Your task to perform on an android device: Go to network settings Image 0: 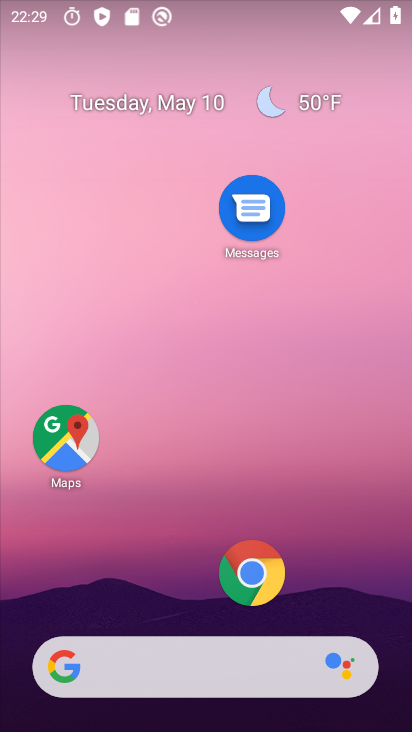
Step 0: drag from (183, 600) to (202, 107)
Your task to perform on an android device: Go to network settings Image 1: 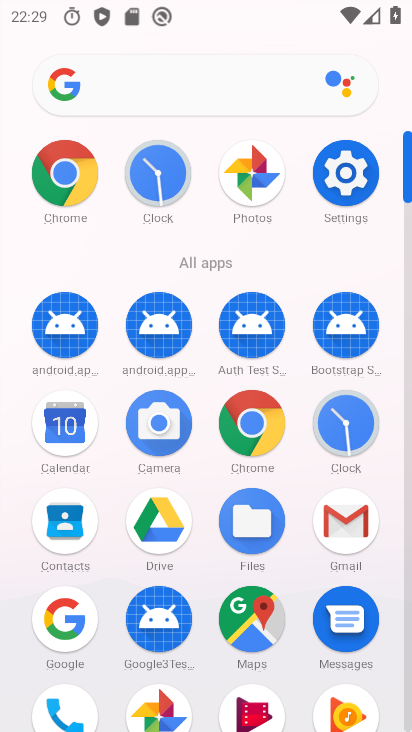
Step 1: click (349, 167)
Your task to perform on an android device: Go to network settings Image 2: 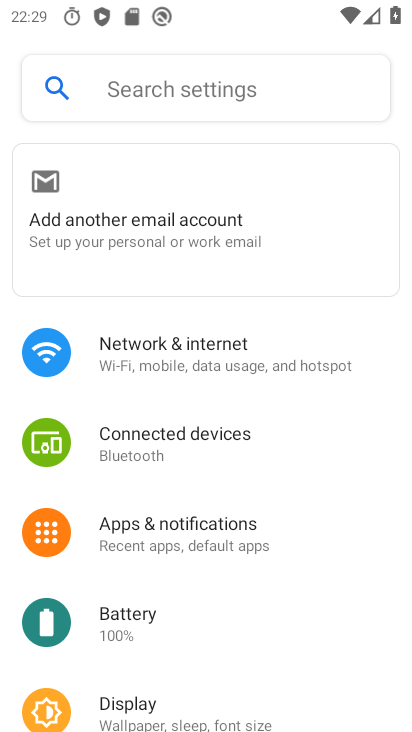
Step 2: click (185, 367)
Your task to perform on an android device: Go to network settings Image 3: 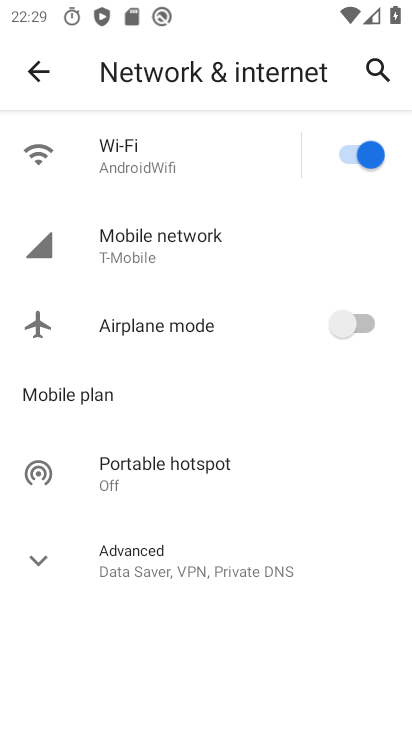
Step 3: click (140, 247)
Your task to perform on an android device: Go to network settings Image 4: 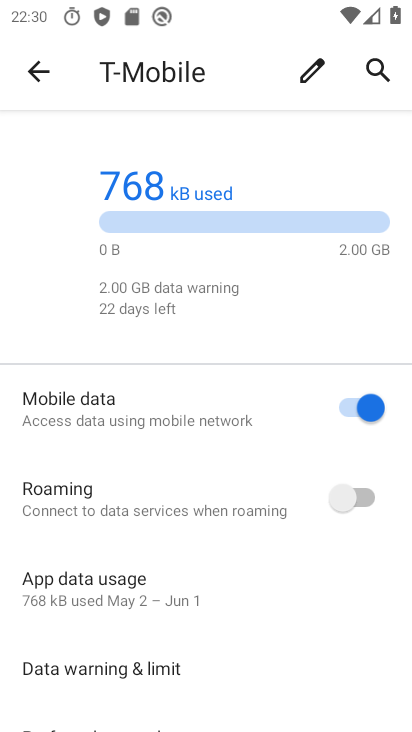
Step 4: task complete